Your task to perform on an android device: Show me popular videos on Youtube Image 0: 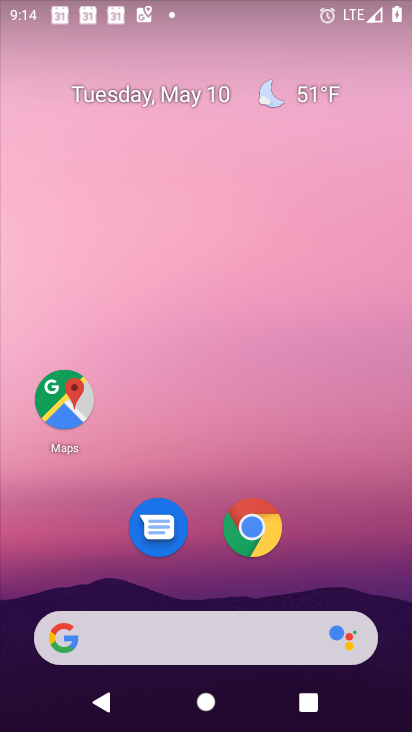
Step 0: drag from (224, 602) to (164, 5)
Your task to perform on an android device: Show me popular videos on Youtube Image 1: 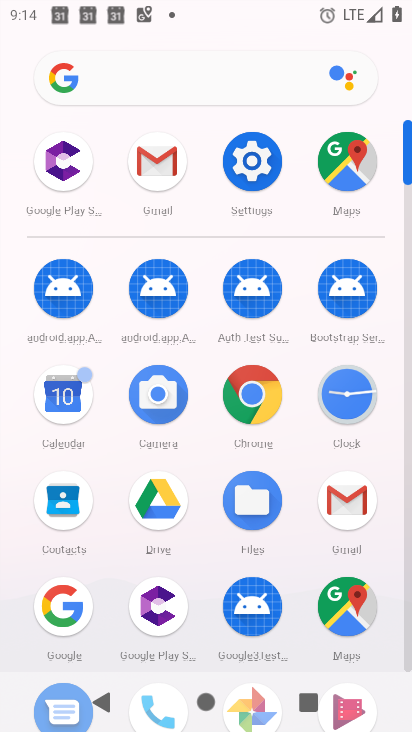
Step 1: drag from (306, 557) to (292, 90)
Your task to perform on an android device: Show me popular videos on Youtube Image 2: 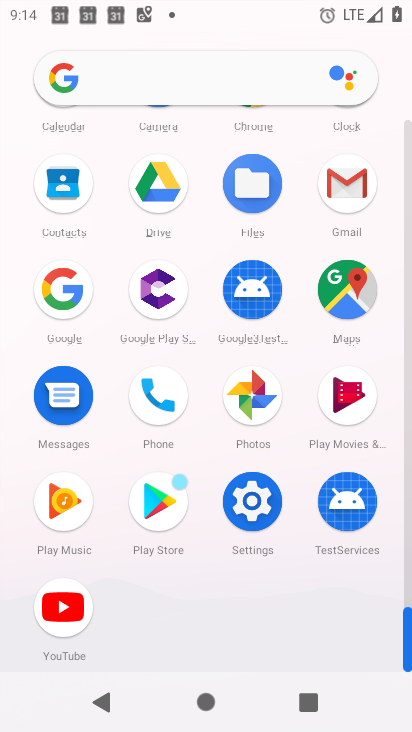
Step 2: click (71, 612)
Your task to perform on an android device: Show me popular videos on Youtube Image 3: 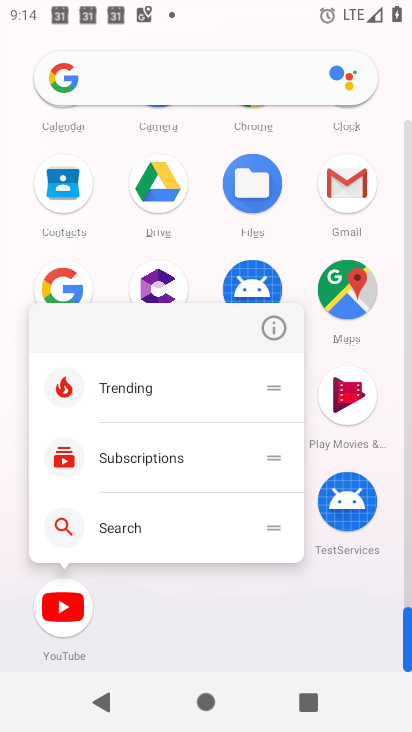
Step 3: click (39, 610)
Your task to perform on an android device: Show me popular videos on Youtube Image 4: 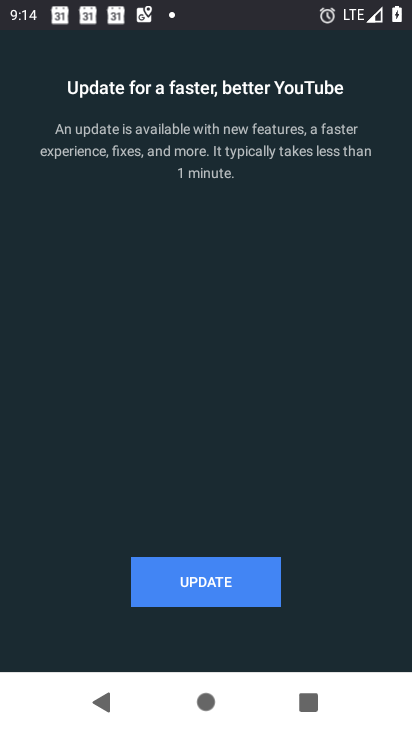
Step 4: click (184, 602)
Your task to perform on an android device: Show me popular videos on Youtube Image 5: 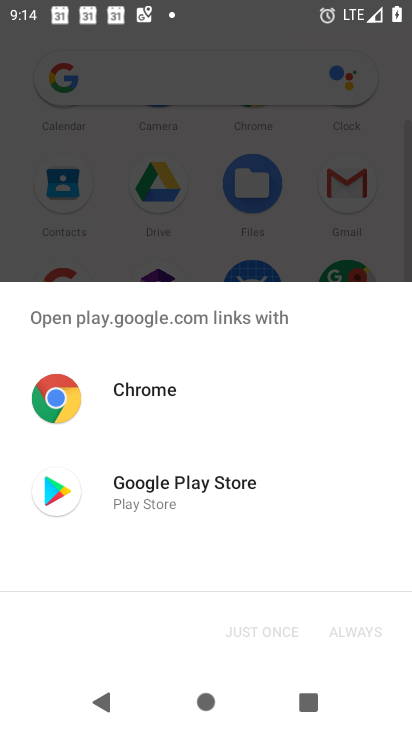
Step 5: click (204, 495)
Your task to perform on an android device: Show me popular videos on Youtube Image 6: 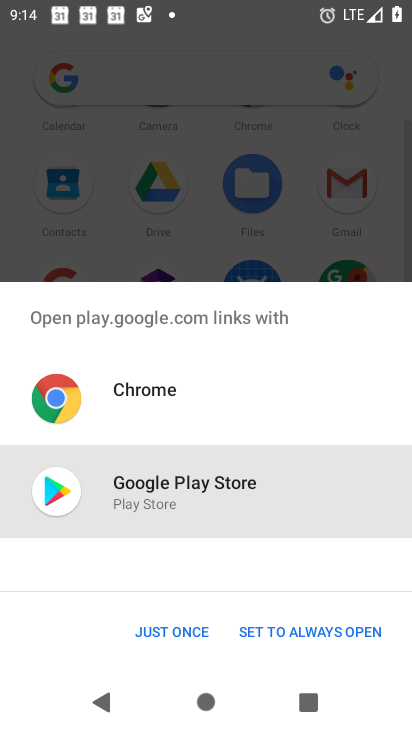
Step 6: drag from (183, 628) to (277, 628)
Your task to perform on an android device: Show me popular videos on Youtube Image 7: 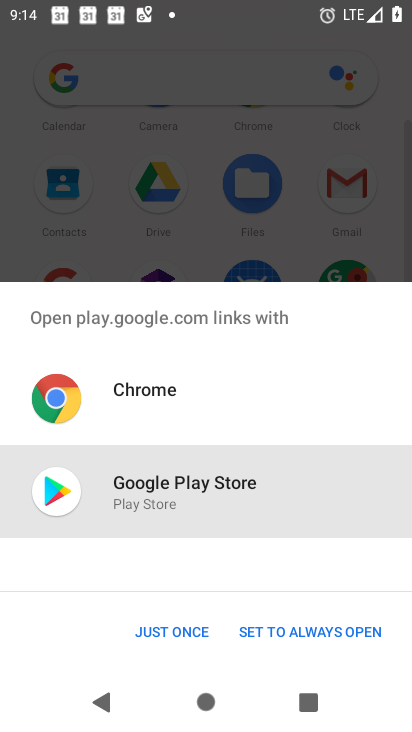
Step 7: click (176, 615)
Your task to perform on an android device: Show me popular videos on Youtube Image 8: 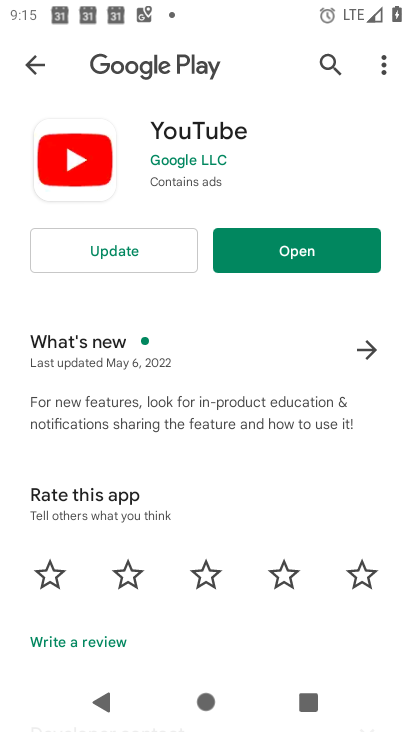
Step 8: click (147, 253)
Your task to perform on an android device: Show me popular videos on Youtube Image 9: 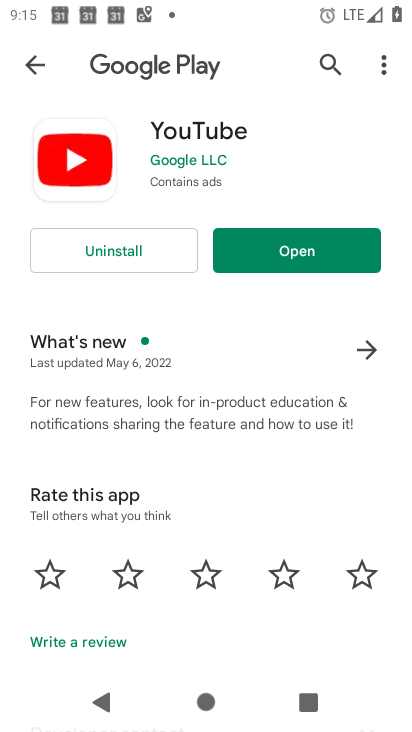
Step 9: click (306, 246)
Your task to perform on an android device: Show me popular videos on Youtube Image 10: 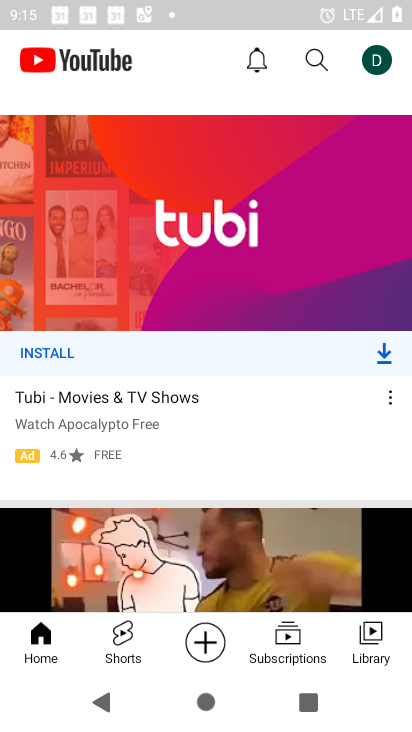
Step 10: click (384, 58)
Your task to perform on an android device: Show me popular videos on Youtube Image 11: 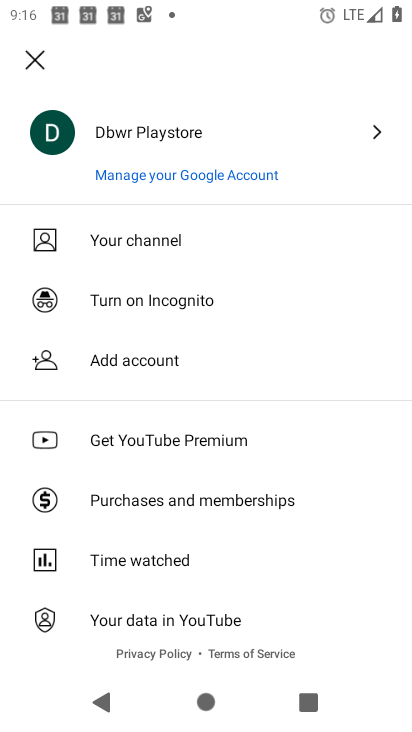
Step 11: task complete